Your task to perform on an android device: stop showing notifications on the lock screen Image 0: 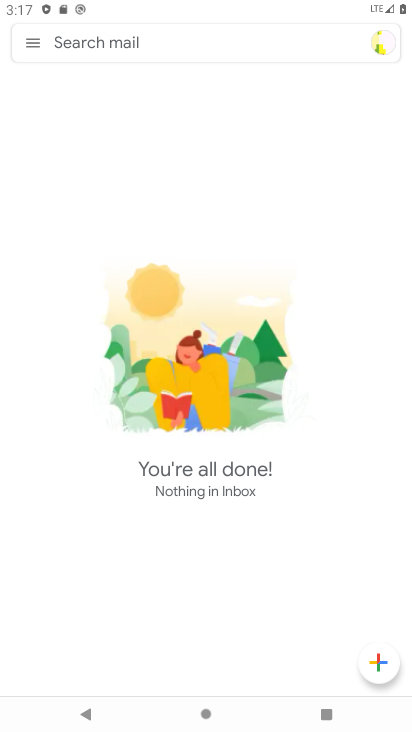
Step 0: press home button
Your task to perform on an android device: stop showing notifications on the lock screen Image 1: 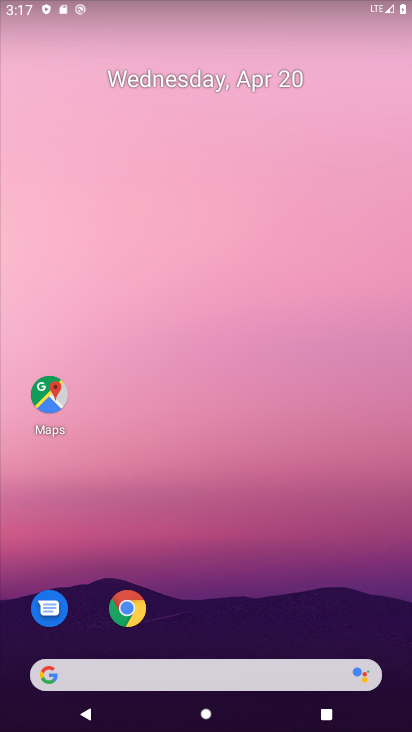
Step 1: drag from (209, 641) to (259, 7)
Your task to perform on an android device: stop showing notifications on the lock screen Image 2: 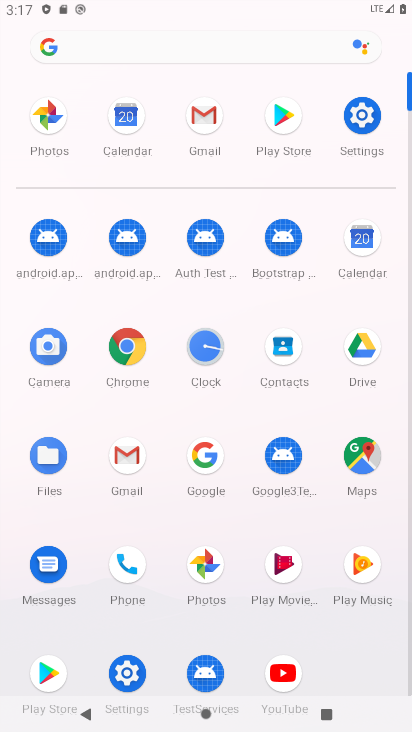
Step 2: click (357, 118)
Your task to perform on an android device: stop showing notifications on the lock screen Image 3: 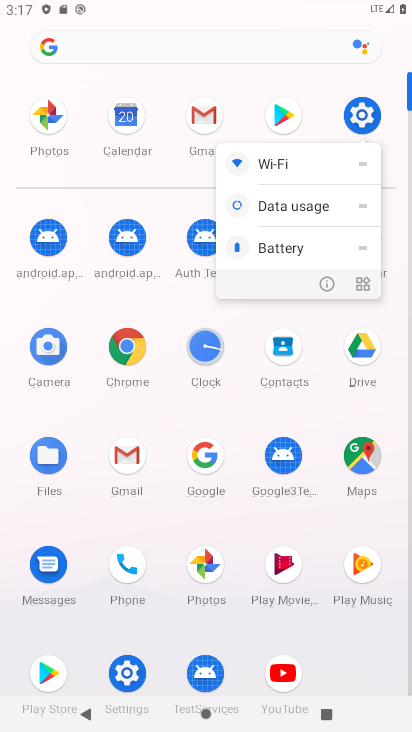
Step 3: click (367, 112)
Your task to perform on an android device: stop showing notifications on the lock screen Image 4: 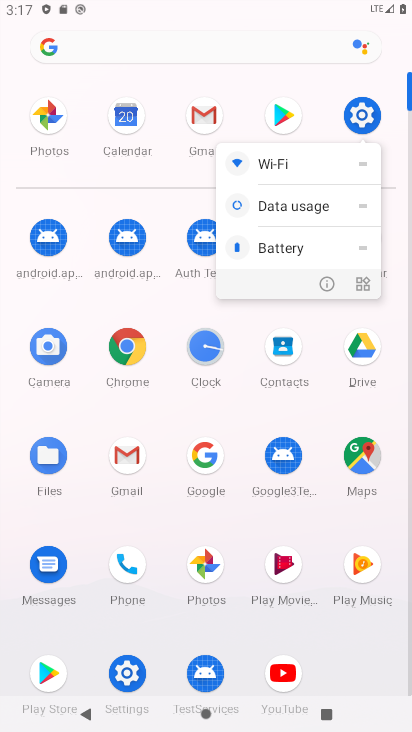
Step 4: click (358, 105)
Your task to perform on an android device: stop showing notifications on the lock screen Image 5: 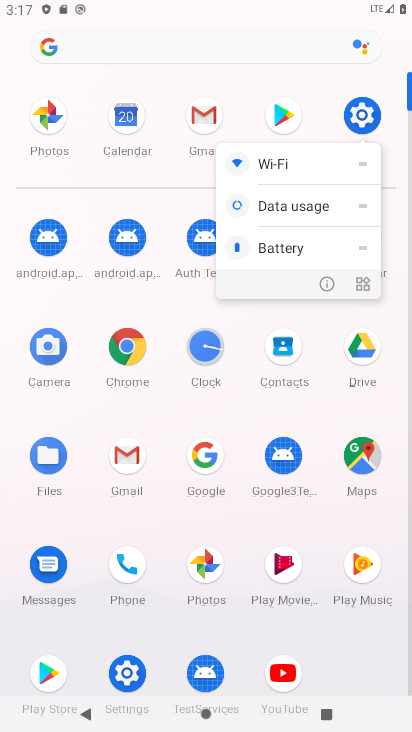
Step 5: click (358, 108)
Your task to perform on an android device: stop showing notifications on the lock screen Image 6: 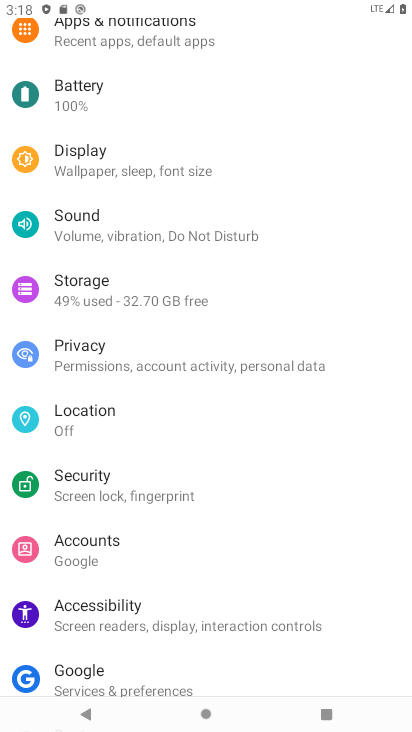
Step 6: click (173, 27)
Your task to perform on an android device: stop showing notifications on the lock screen Image 7: 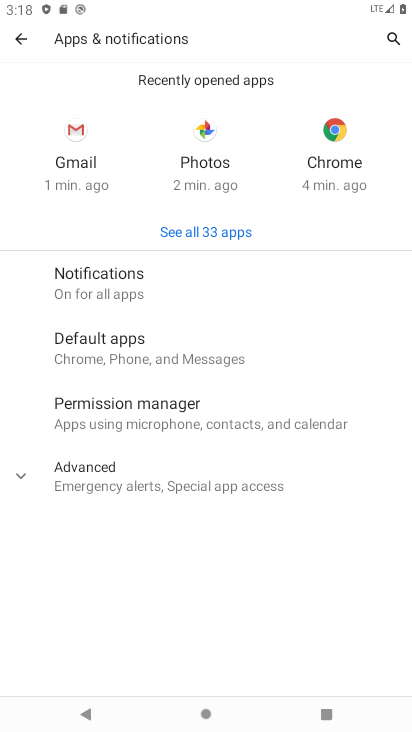
Step 7: click (113, 269)
Your task to perform on an android device: stop showing notifications on the lock screen Image 8: 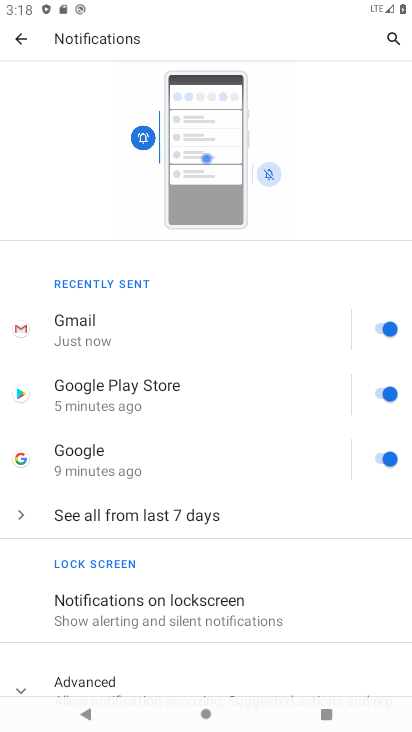
Step 8: click (166, 608)
Your task to perform on an android device: stop showing notifications on the lock screen Image 9: 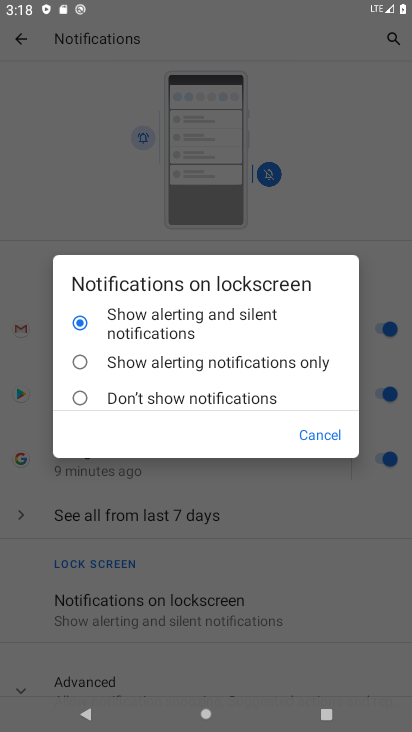
Step 9: click (150, 400)
Your task to perform on an android device: stop showing notifications on the lock screen Image 10: 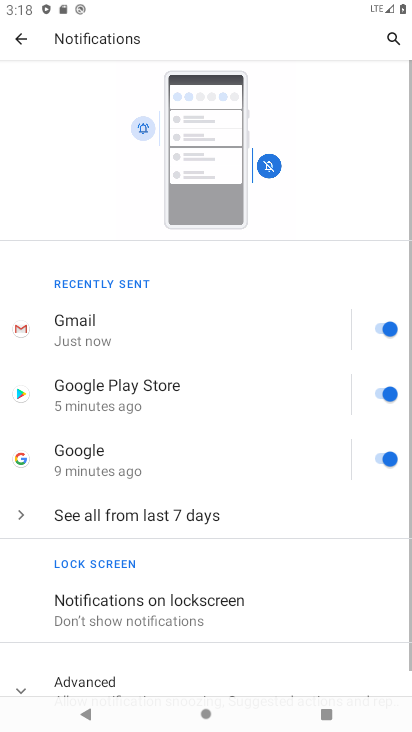
Step 10: task complete